Your task to perform on an android device: check the backup settings in the google photos Image 0: 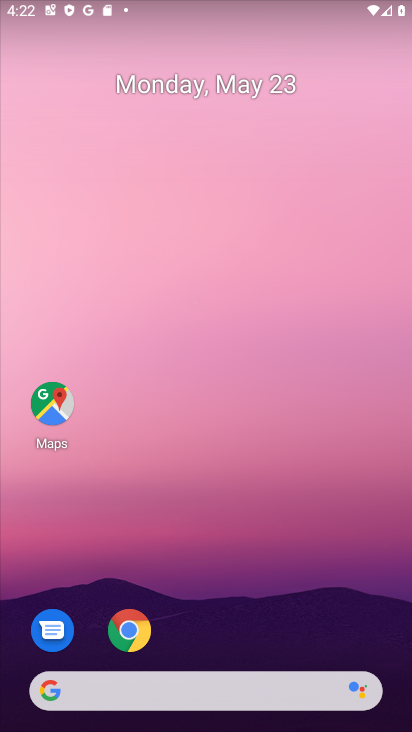
Step 0: drag from (210, 651) to (240, 120)
Your task to perform on an android device: check the backup settings in the google photos Image 1: 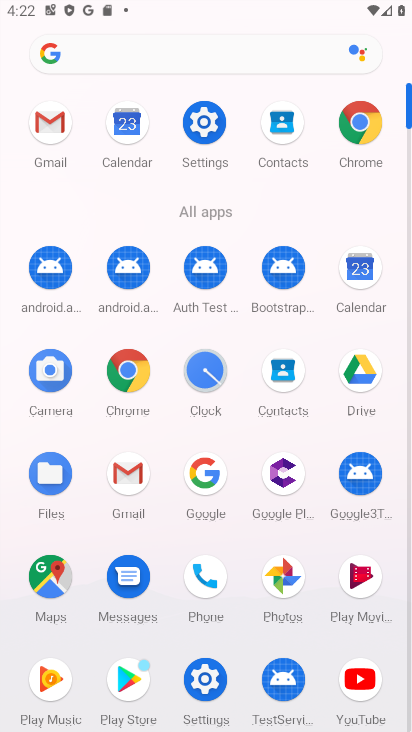
Step 1: click (199, 674)
Your task to perform on an android device: check the backup settings in the google photos Image 2: 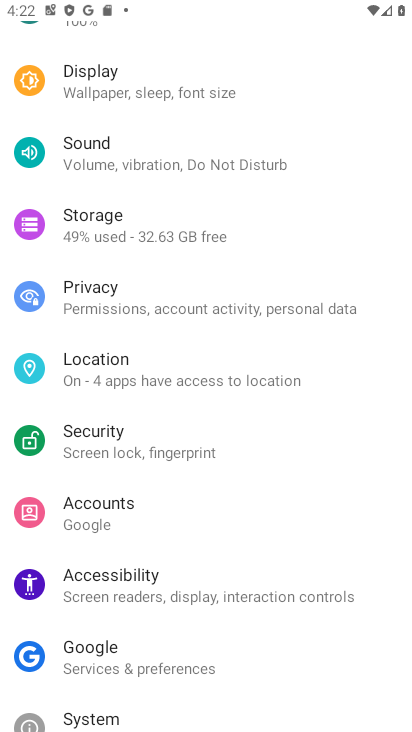
Step 2: press home button
Your task to perform on an android device: check the backup settings in the google photos Image 3: 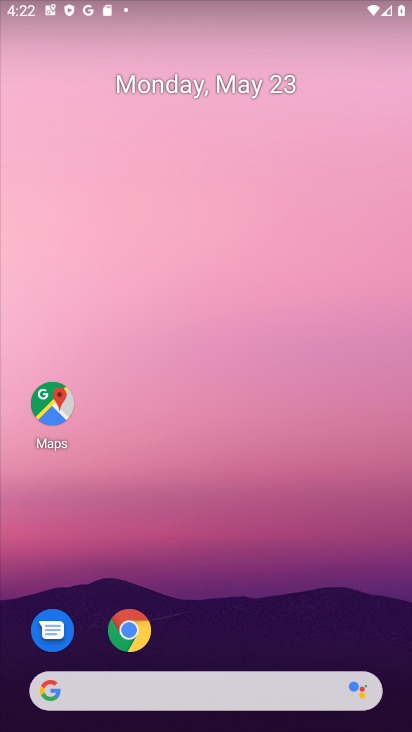
Step 3: drag from (234, 636) to (244, 156)
Your task to perform on an android device: check the backup settings in the google photos Image 4: 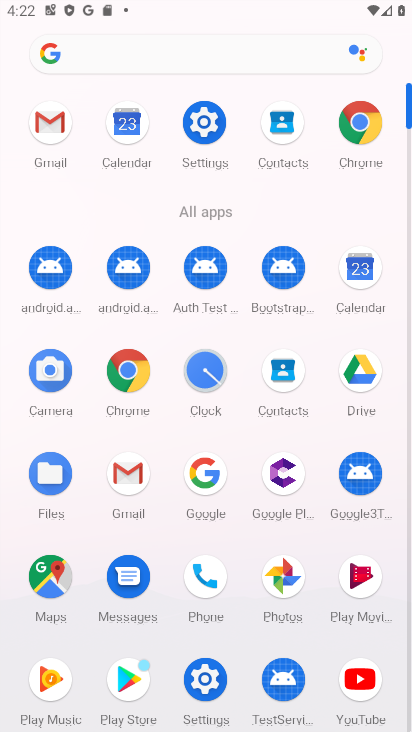
Step 4: click (281, 567)
Your task to perform on an android device: check the backup settings in the google photos Image 5: 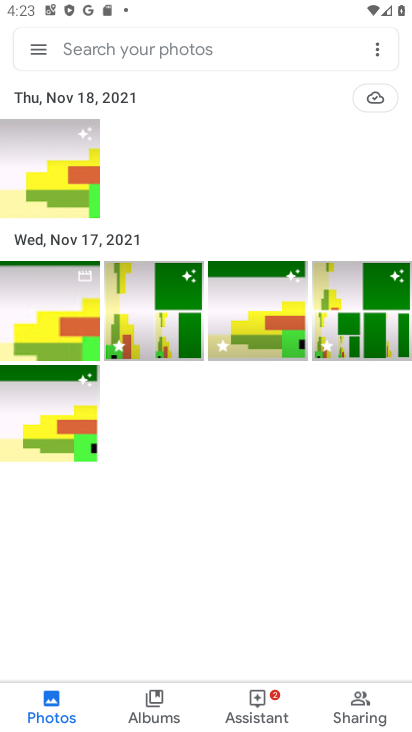
Step 5: click (42, 44)
Your task to perform on an android device: check the backup settings in the google photos Image 6: 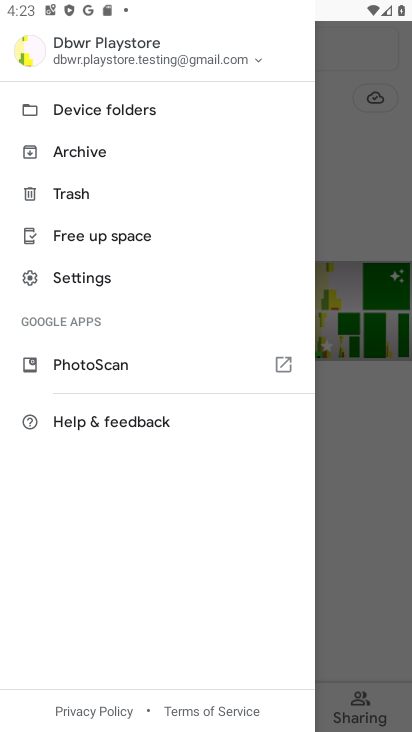
Step 6: click (118, 271)
Your task to perform on an android device: check the backup settings in the google photos Image 7: 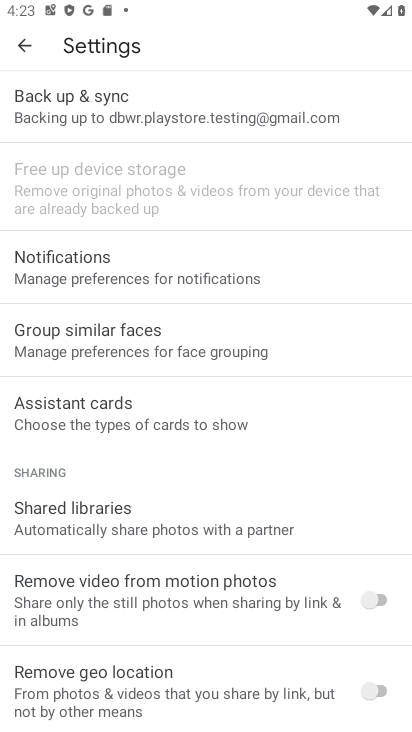
Step 7: click (139, 89)
Your task to perform on an android device: check the backup settings in the google photos Image 8: 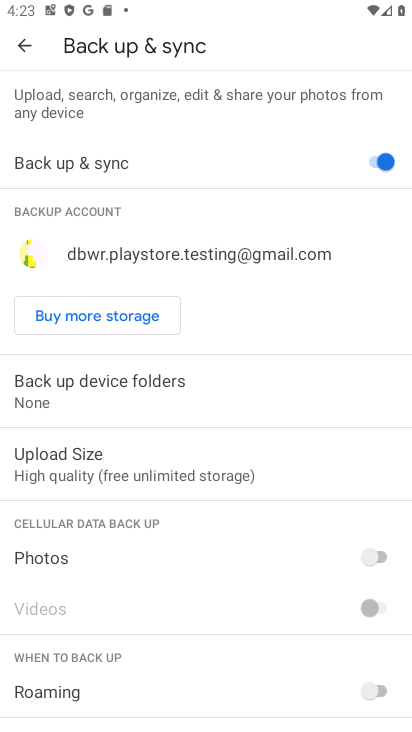
Step 8: task complete